Your task to perform on an android device: change text size in settings app Image 0: 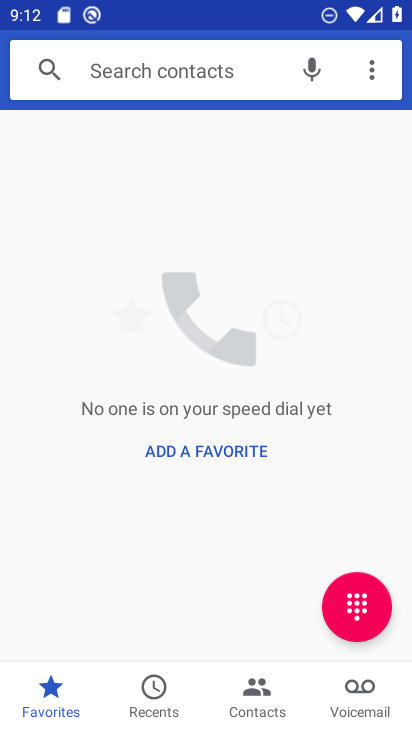
Step 0: press home button
Your task to perform on an android device: change text size in settings app Image 1: 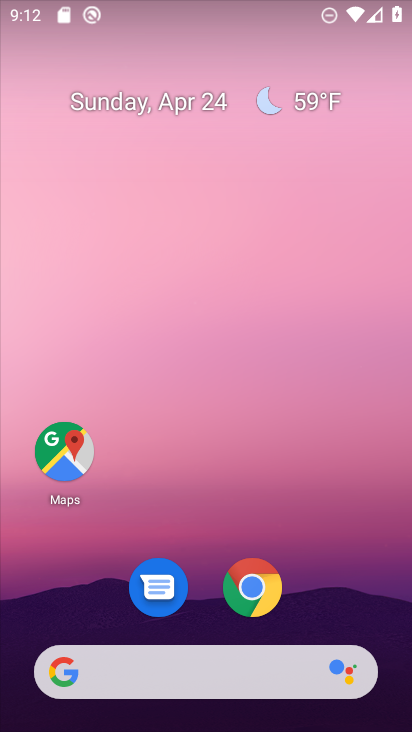
Step 1: drag from (185, 486) to (169, 43)
Your task to perform on an android device: change text size in settings app Image 2: 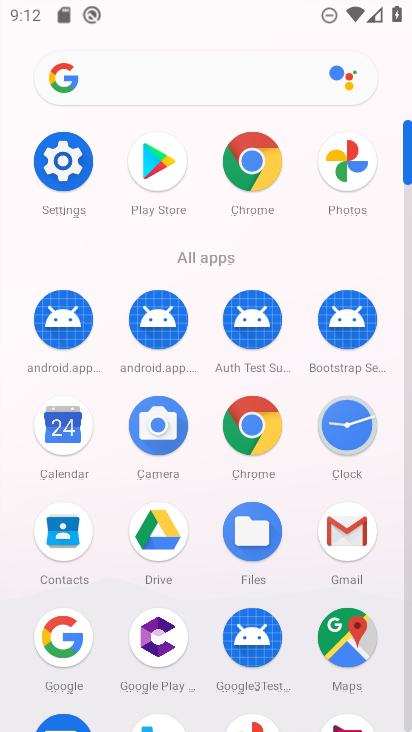
Step 2: click (62, 160)
Your task to perform on an android device: change text size in settings app Image 3: 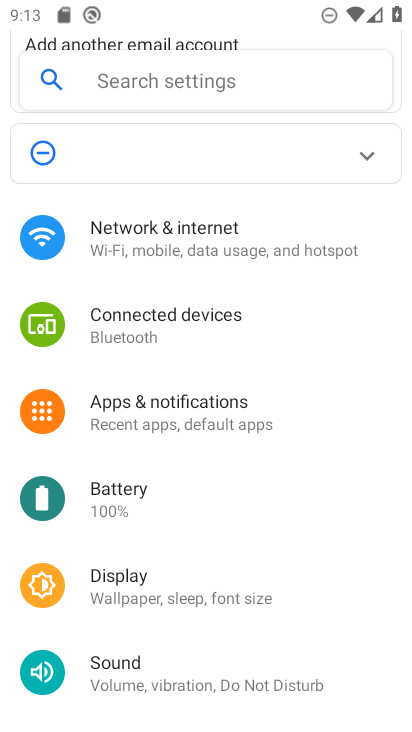
Step 3: drag from (169, 518) to (178, 439)
Your task to perform on an android device: change text size in settings app Image 4: 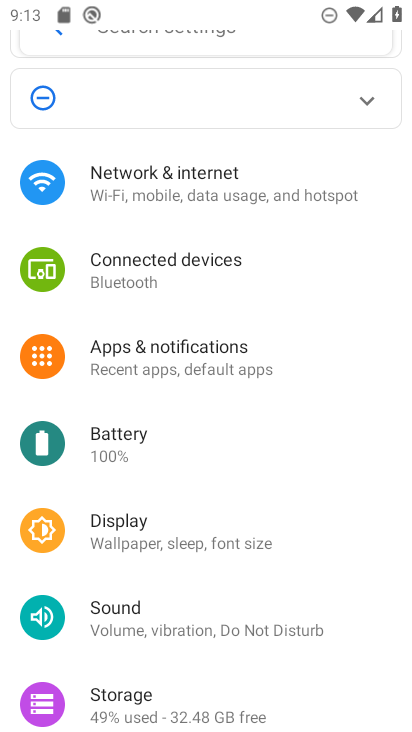
Step 4: drag from (170, 571) to (189, 464)
Your task to perform on an android device: change text size in settings app Image 5: 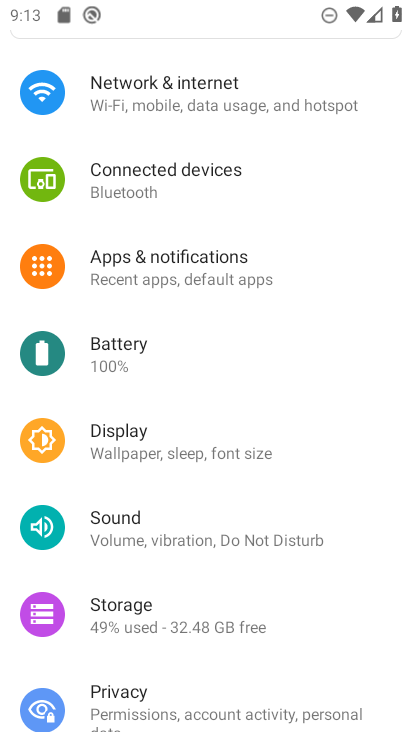
Step 5: drag from (185, 583) to (233, 484)
Your task to perform on an android device: change text size in settings app Image 6: 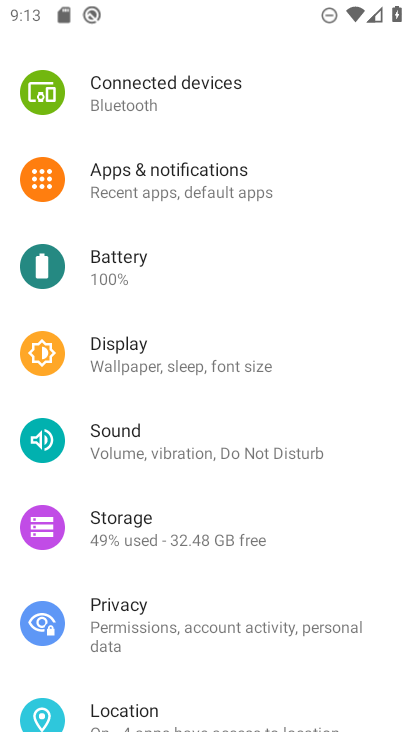
Step 6: drag from (177, 579) to (240, 465)
Your task to perform on an android device: change text size in settings app Image 7: 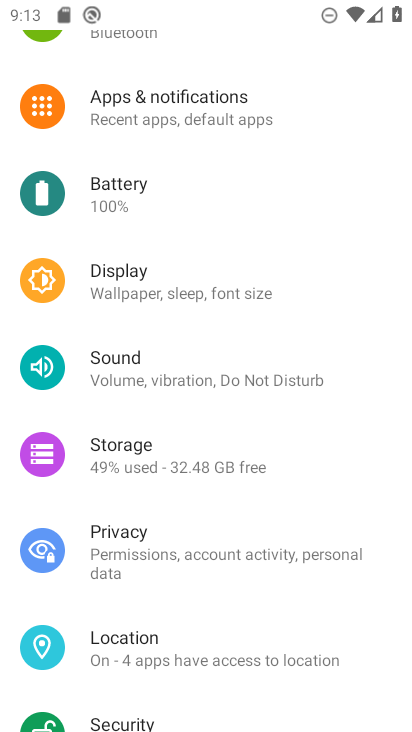
Step 7: drag from (162, 596) to (252, 466)
Your task to perform on an android device: change text size in settings app Image 8: 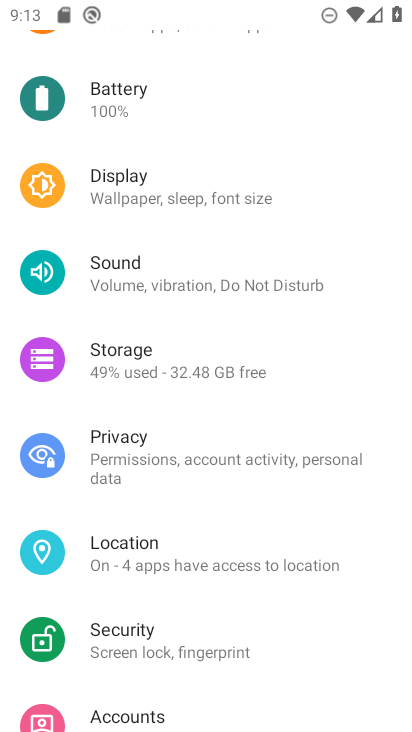
Step 8: drag from (180, 517) to (247, 419)
Your task to perform on an android device: change text size in settings app Image 9: 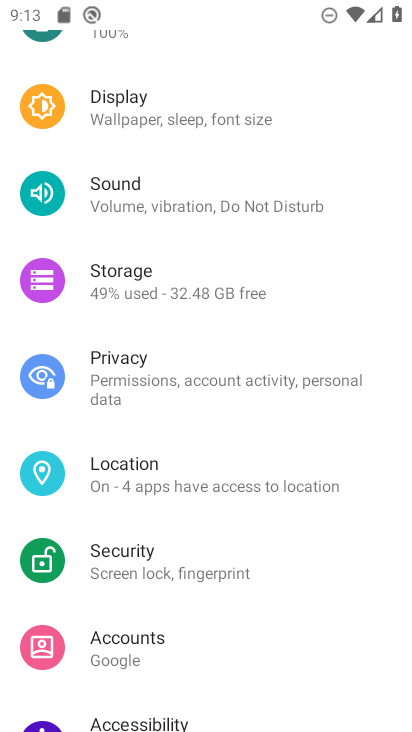
Step 9: drag from (141, 523) to (234, 400)
Your task to perform on an android device: change text size in settings app Image 10: 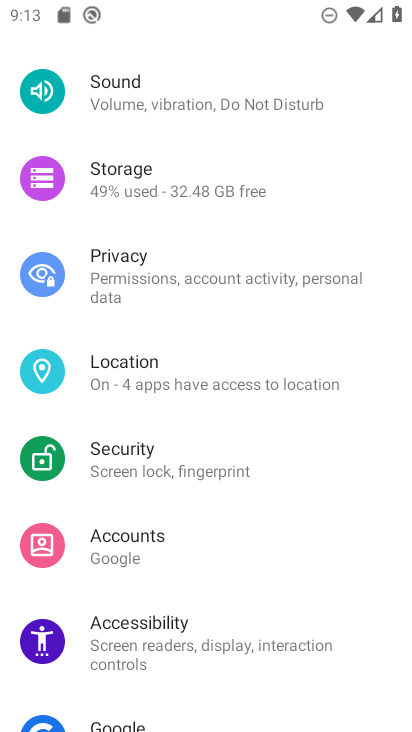
Step 10: drag from (128, 508) to (196, 410)
Your task to perform on an android device: change text size in settings app Image 11: 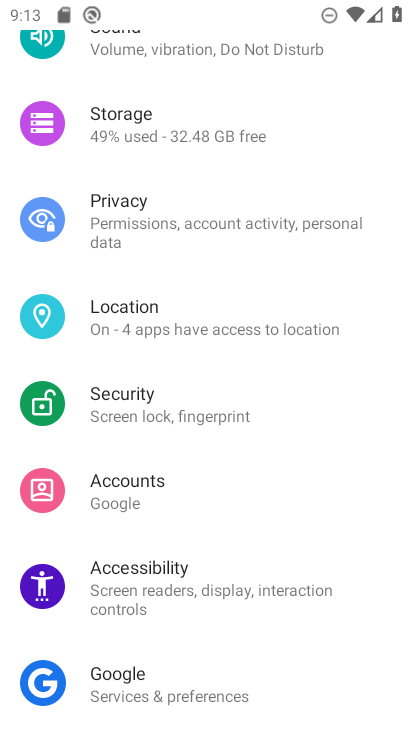
Step 11: click (119, 564)
Your task to perform on an android device: change text size in settings app Image 12: 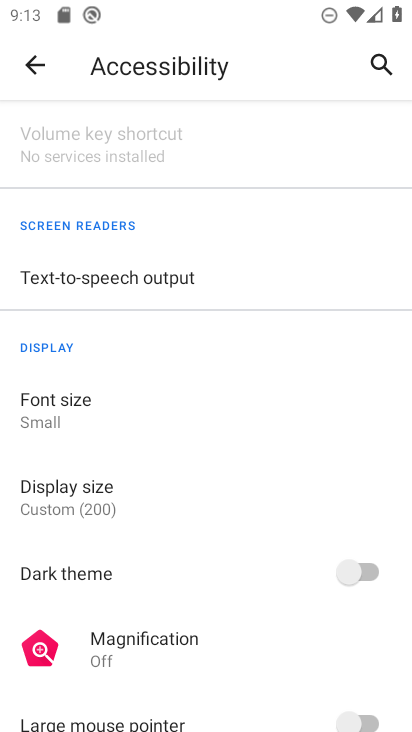
Step 12: click (92, 395)
Your task to perform on an android device: change text size in settings app Image 13: 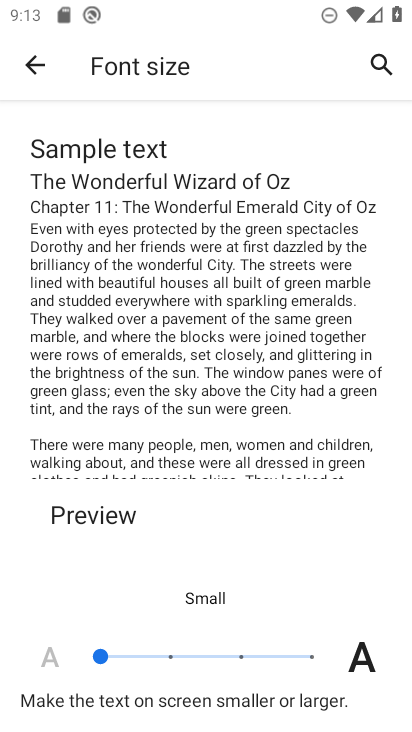
Step 13: click (165, 659)
Your task to perform on an android device: change text size in settings app Image 14: 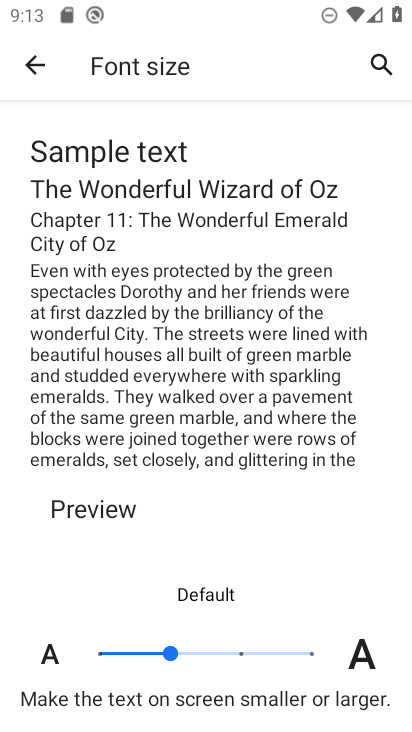
Step 14: task complete